Your task to perform on an android device: clear history in the chrome app Image 0: 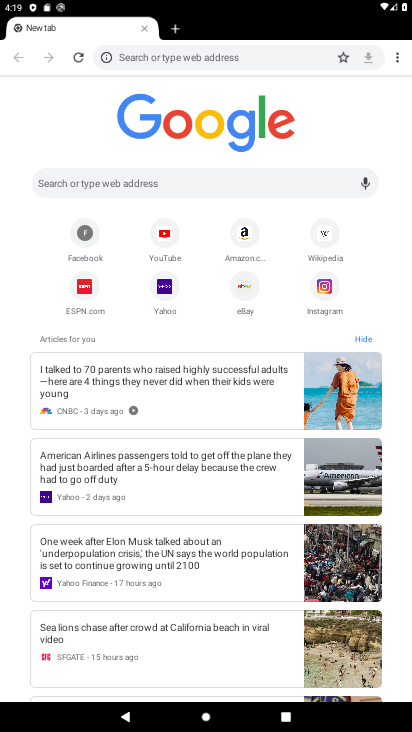
Step 0: press home button
Your task to perform on an android device: clear history in the chrome app Image 1: 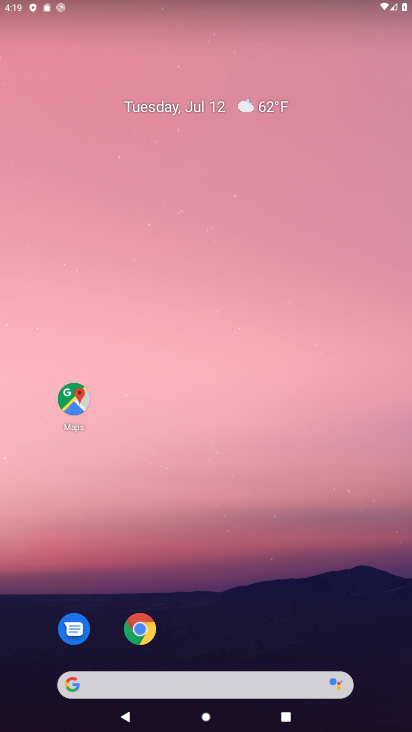
Step 1: drag from (193, 662) to (175, 129)
Your task to perform on an android device: clear history in the chrome app Image 2: 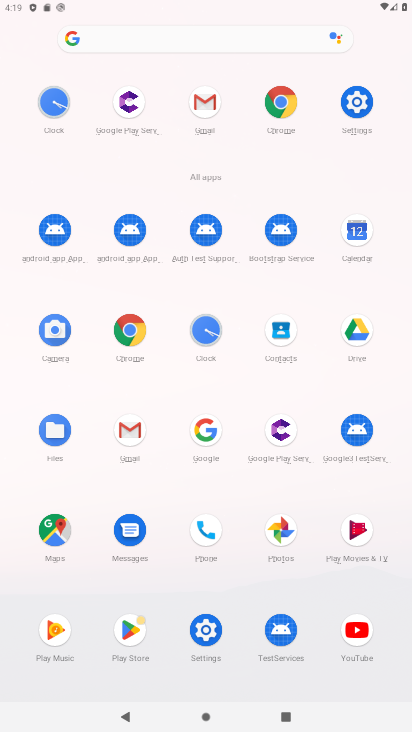
Step 2: click (134, 336)
Your task to perform on an android device: clear history in the chrome app Image 3: 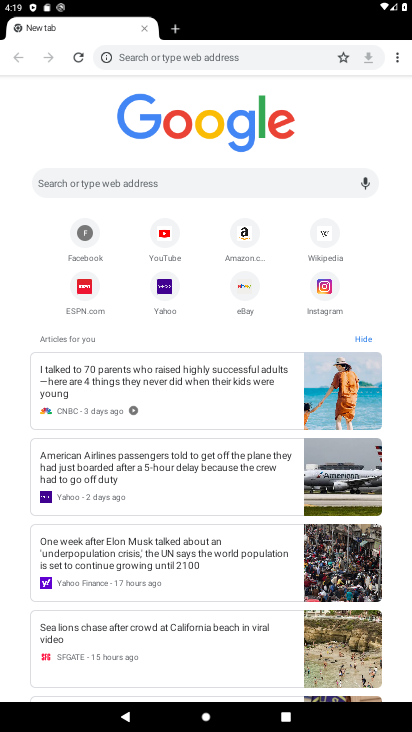
Step 3: click (393, 55)
Your task to perform on an android device: clear history in the chrome app Image 4: 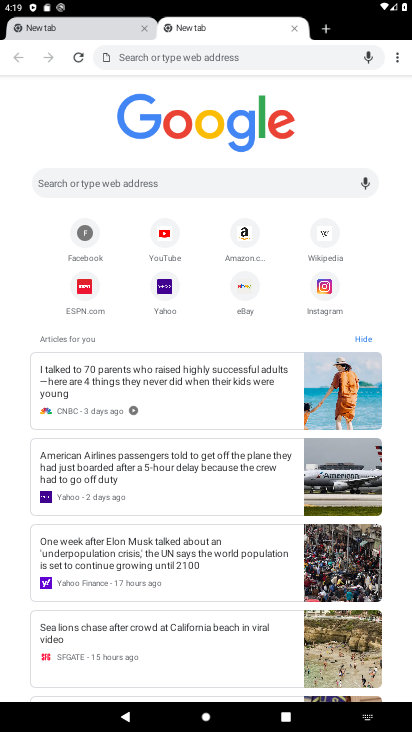
Step 4: drag from (395, 56) to (262, 185)
Your task to perform on an android device: clear history in the chrome app Image 5: 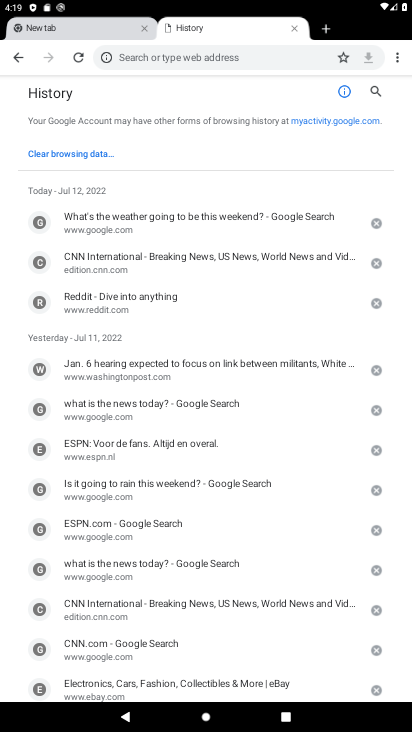
Step 5: click (47, 155)
Your task to perform on an android device: clear history in the chrome app Image 6: 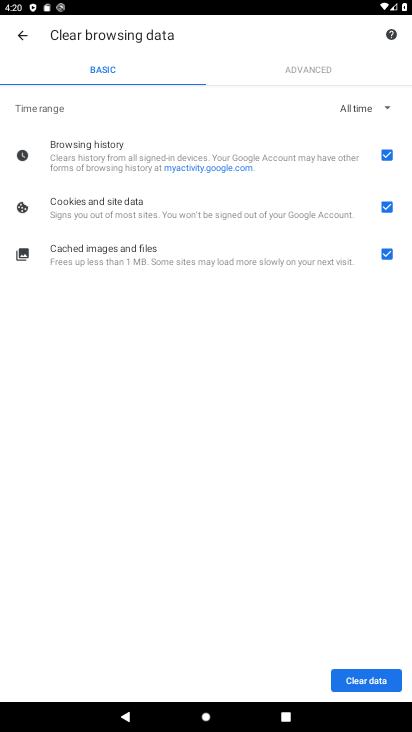
Step 6: click (387, 688)
Your task to perform on an android device: clear history in the chrome app Image 7: 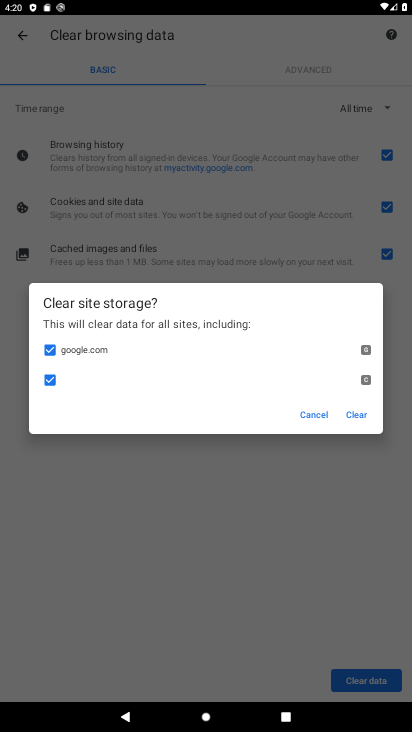
Step 7: click (361, 412)
Your task to perform on an android device: clear history in the chrome app Image 8: 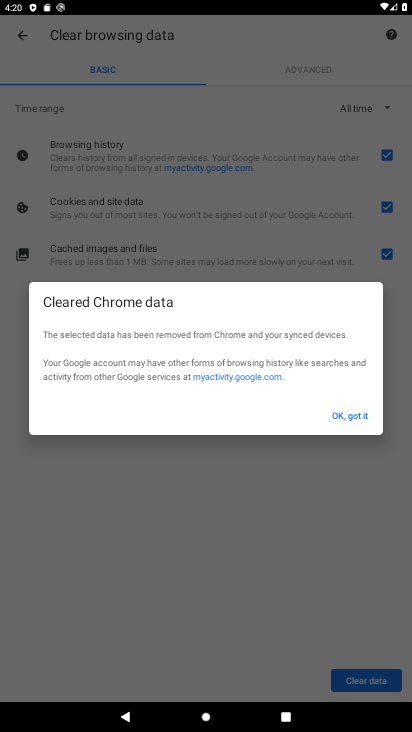
Step 8: task complete